Your task to perform on an android device: turn off priority inbox in the gmail app Image 0: 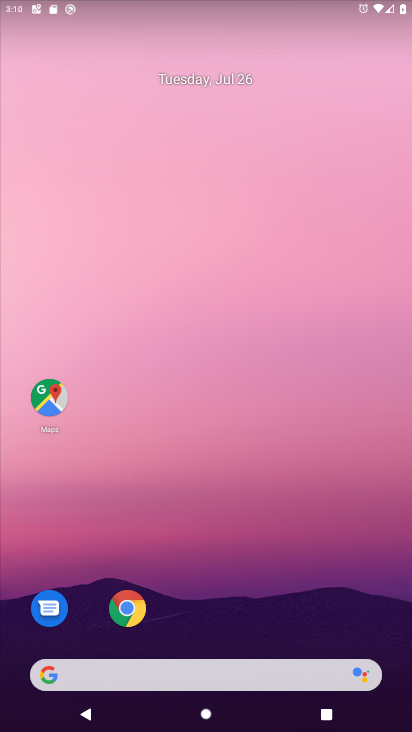
Step 0: drag from (250, 572) to (227, 249)
Your task to perform on an android device: turn off priority inbox in the gmail app Image 1: 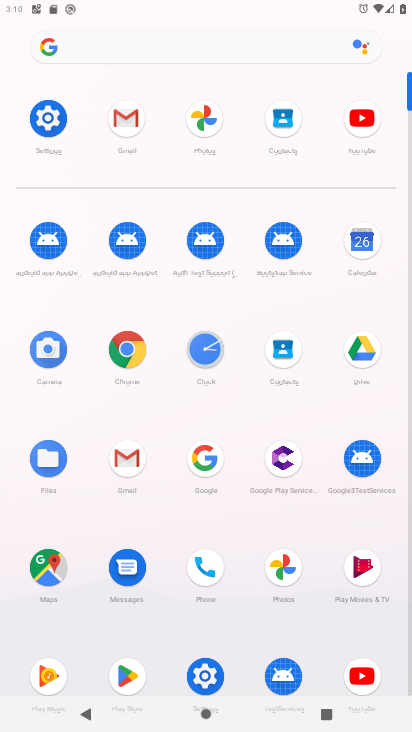
Step 1: click (122, 132)
Your task to perform on an android device: turn off priority inbox in the gmail app Image 2: 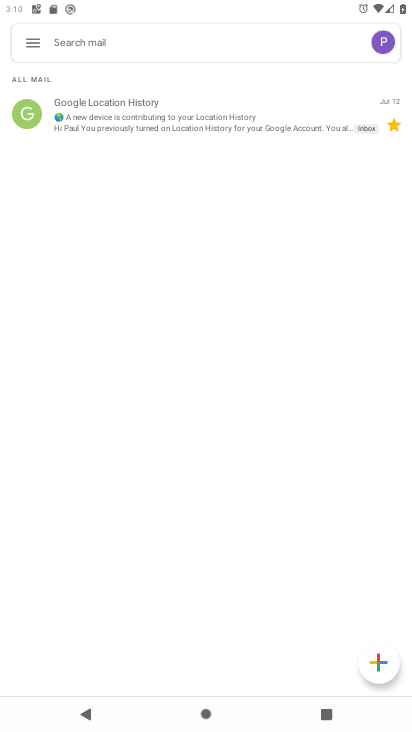
Step 2: click (29, 48)
Your task to perform on an android device: turn off priority inbox in the gmail app Image 3: 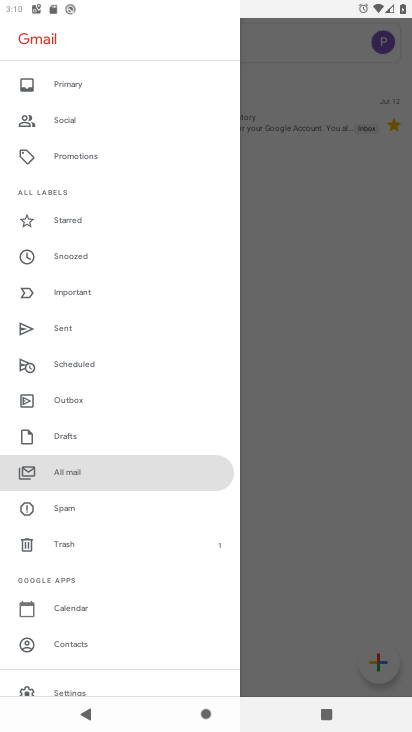
Step 3: click (104, 683)
Your task to perform on an android device: turn off priority inbox in the gmail app Image 4: 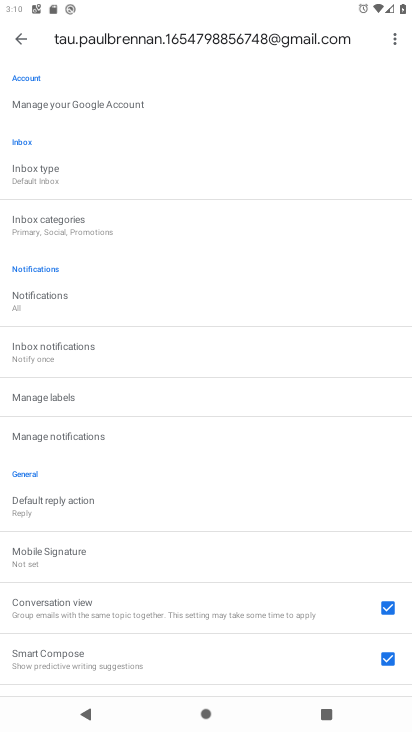
Step 4: click (40, 175)
Your task to perform on an android device: turn off priority inbox in the gmail app Image 5: 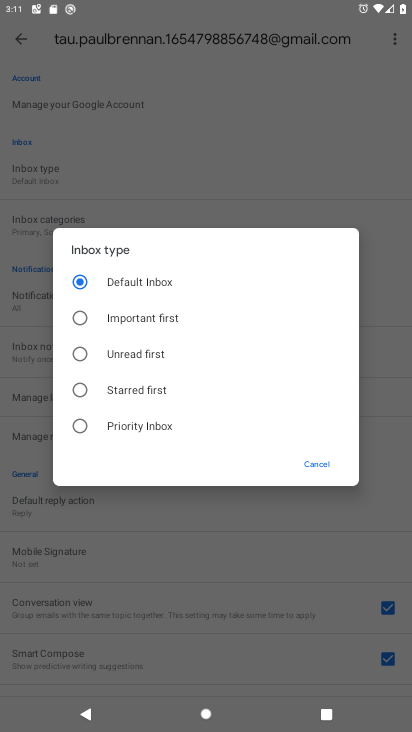
Step 5: click (172, 277)
Your task to perform on an android device: turn off priority inbox in the gmail app Image 6: 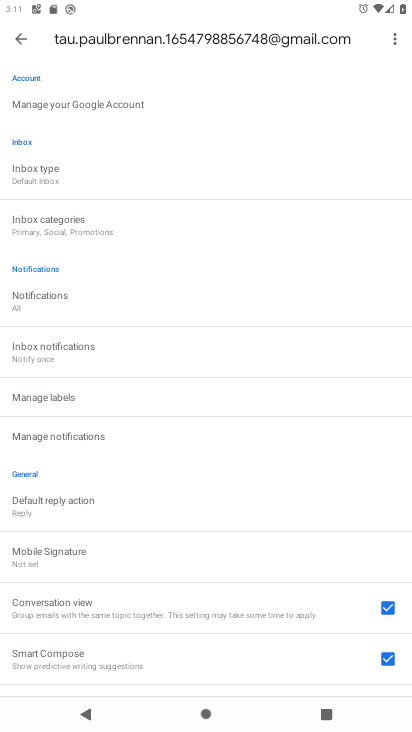
Step 6: task complete